Your task to perform on an android device: Open Google Image 0: 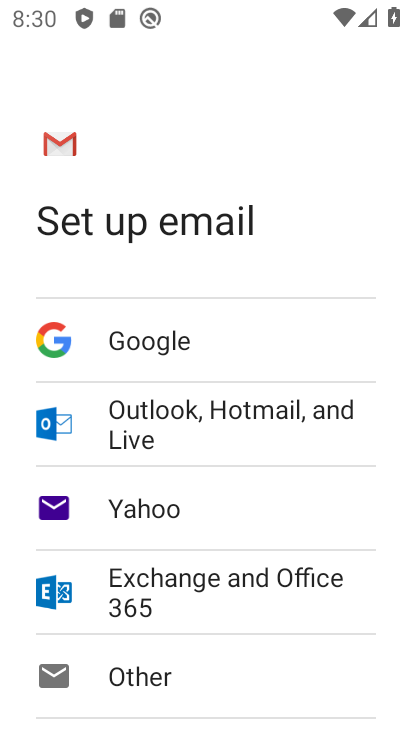
Step 0: press home button
Your task to perform on an android device: Open Google Image 1: 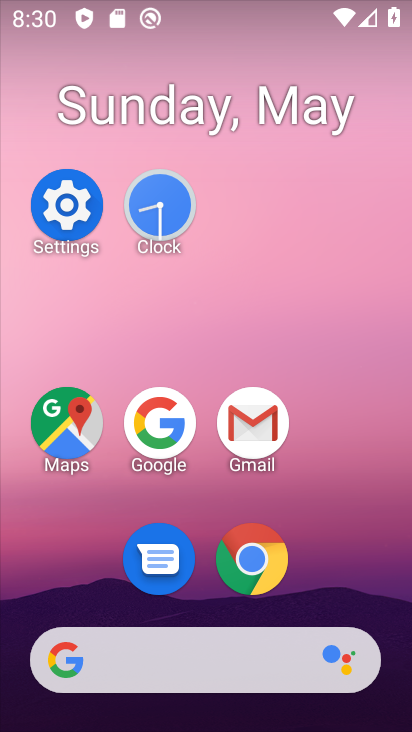
Step 1: click (160, 414)
Your task to perform on an android device: Open Google Image 2: 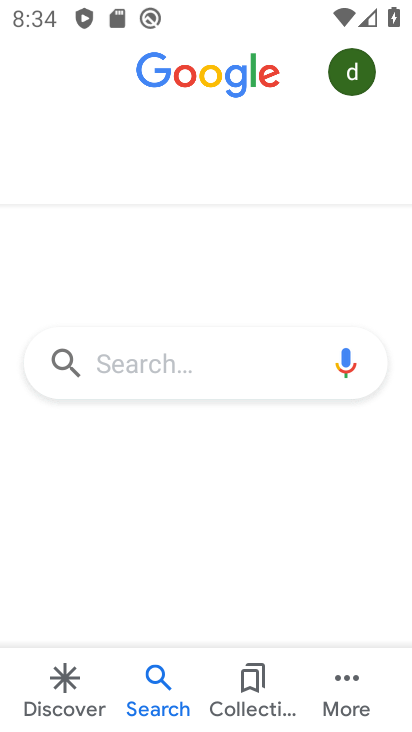
Step 2: task complete